Your task to perform on an android device: change alarm snooze length Image 0: 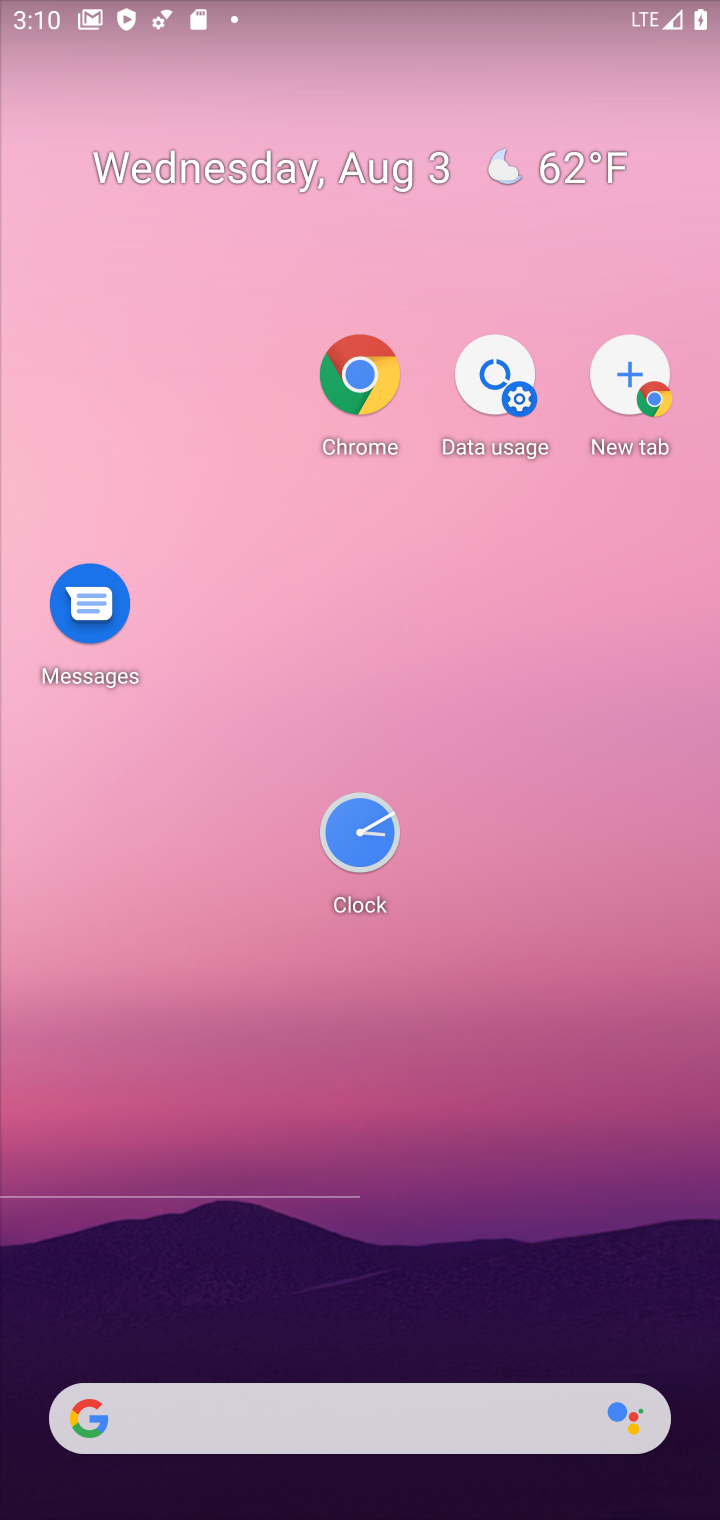
Step 0: drag from (570, 1499) to (280, 309)
Your task to perform on an android device: change alarm snooze length Image 1: 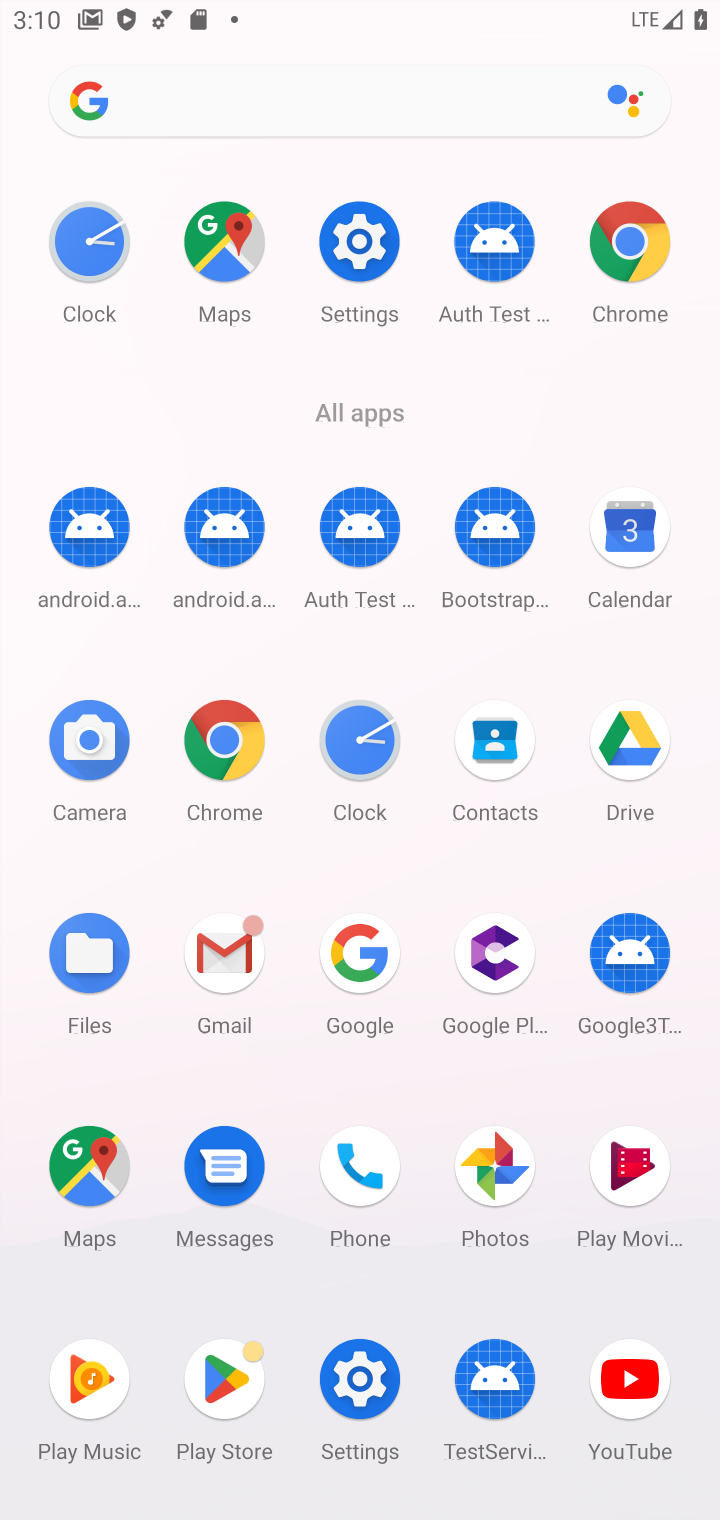
Step 1: click (351, 718)
Your task to perform on an android device: change alarm snooze length Image 2: 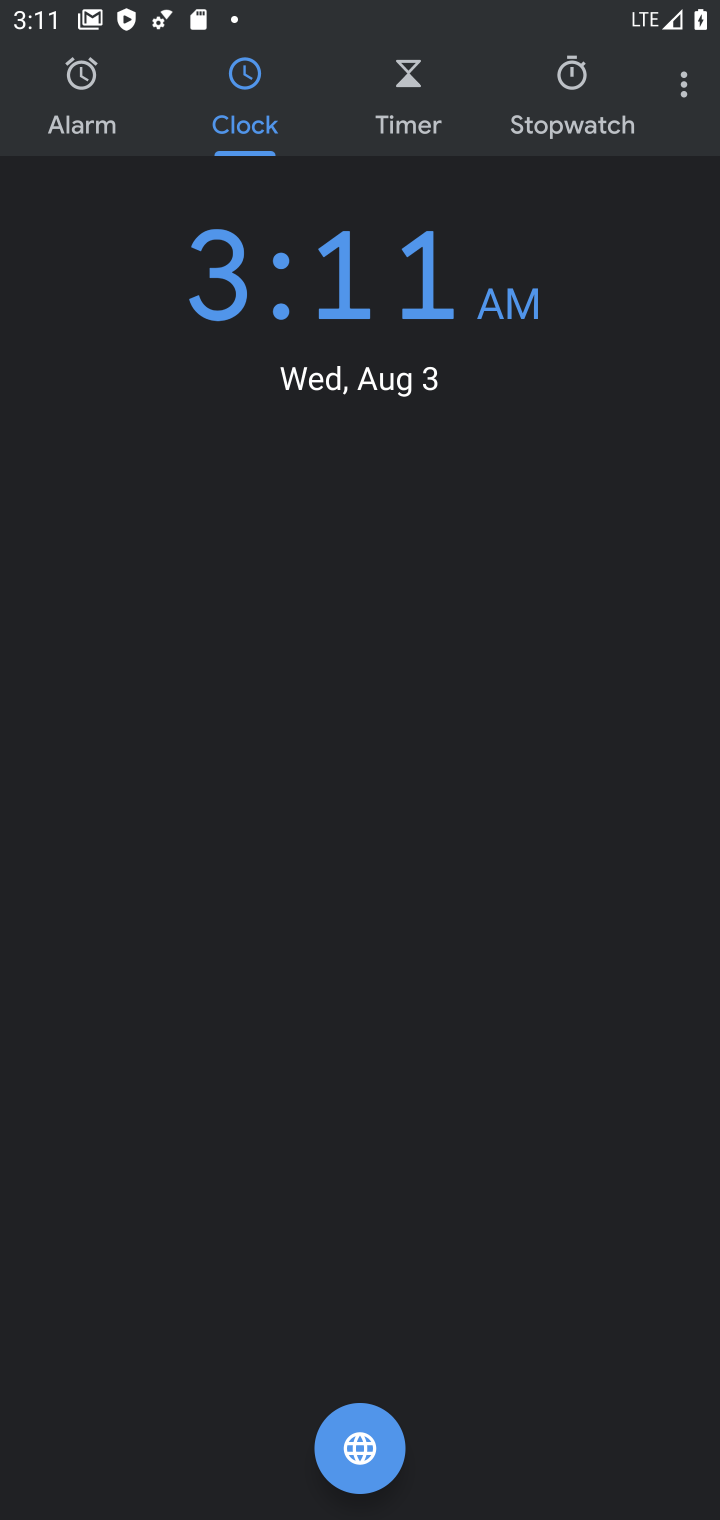
Step 2: click (661, 86)
Your task to perform on an android device: change alarm snooze length Image 3: 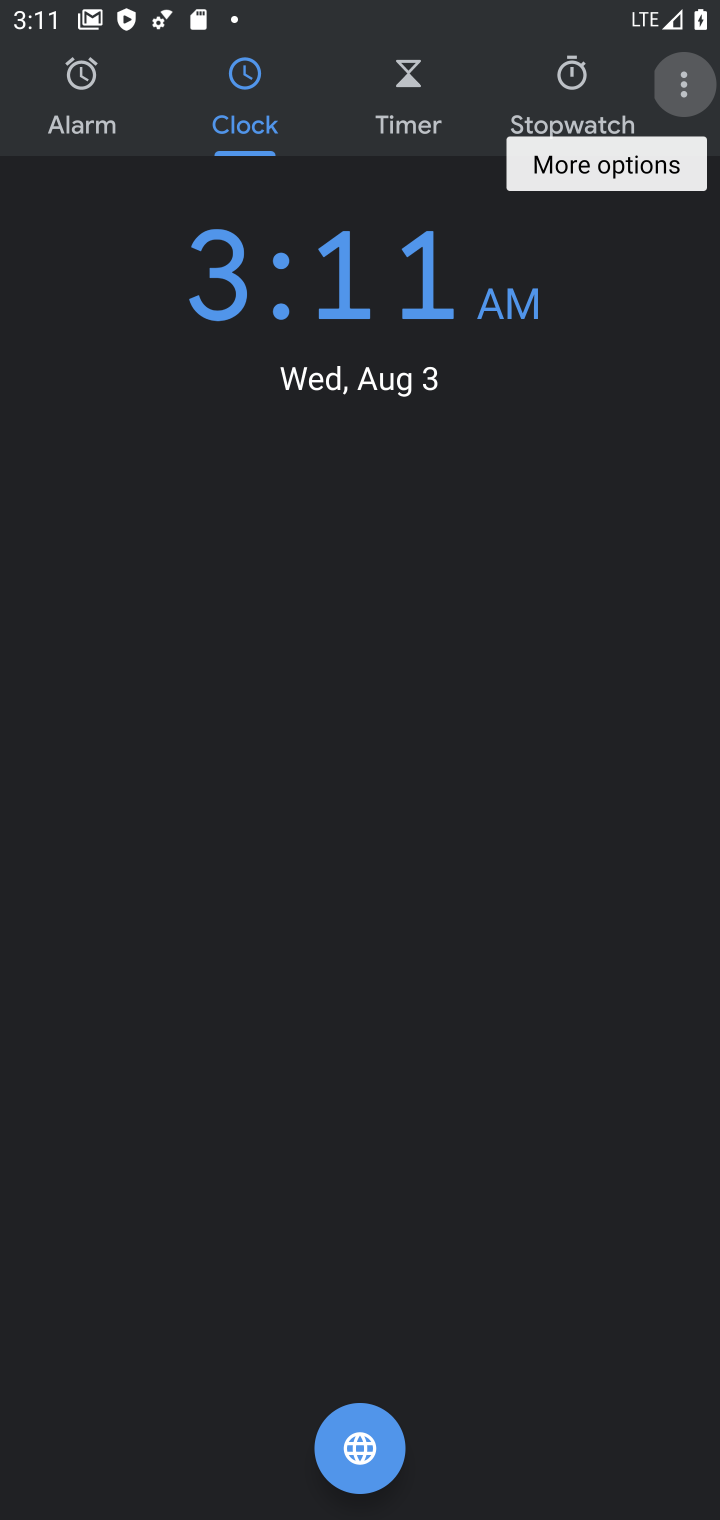
Step 3: drag from (661, 86) to (476, 190)
Your task to perform on an android device: change alarm snooze length Image 4: 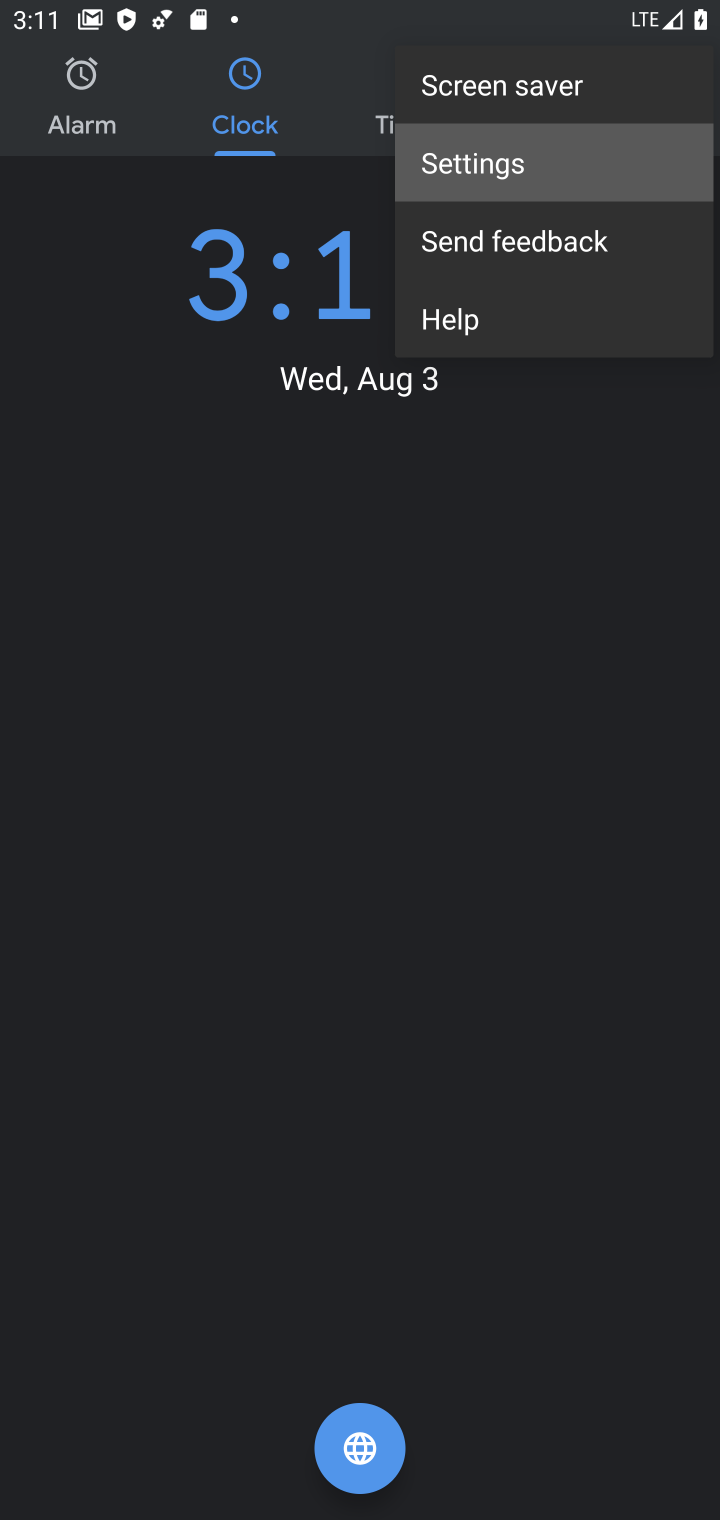
Step 4: click (476, 190)
Your task to perform on an android device: change alarm snooze length Image 5: 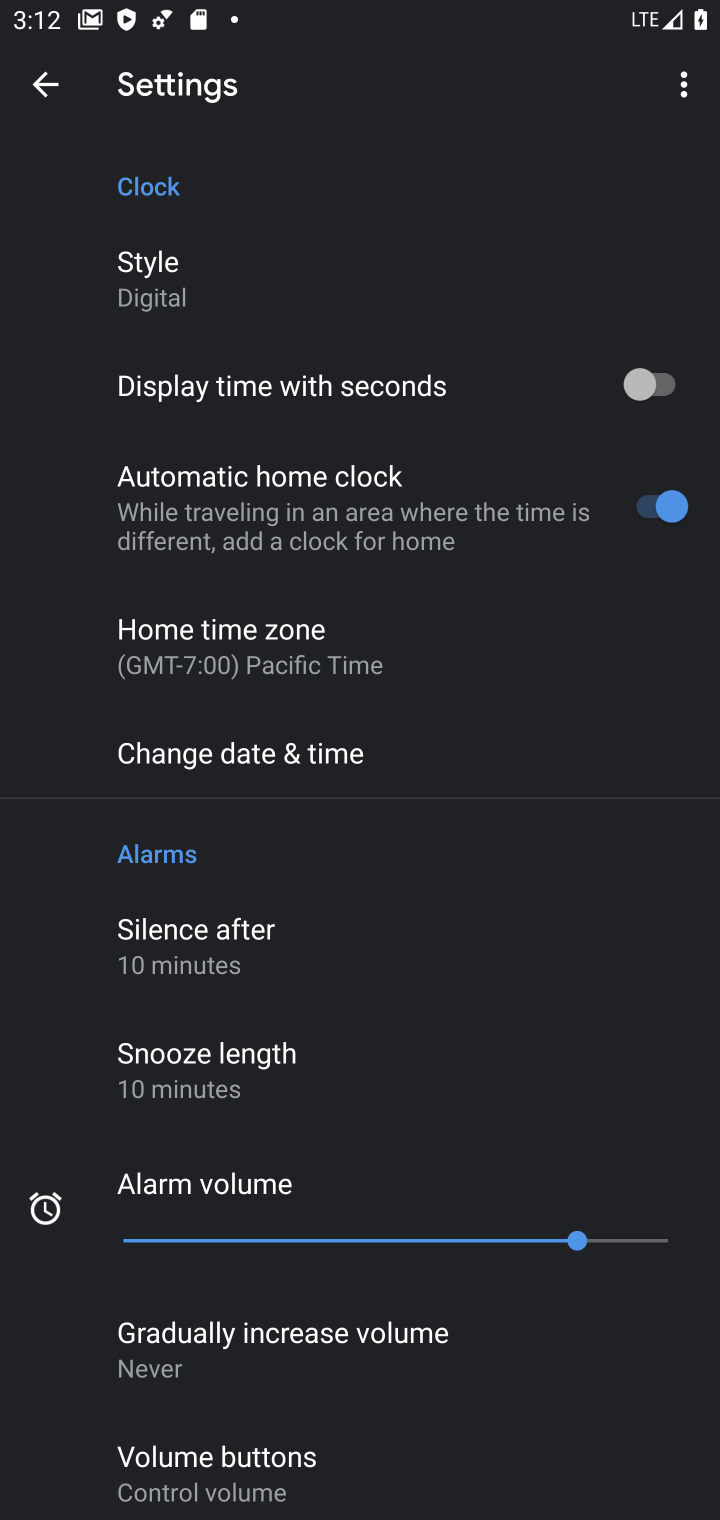
Step 5: click (210, 1042)
Your task to perform on an android device: change alarm snooze length Image 6: 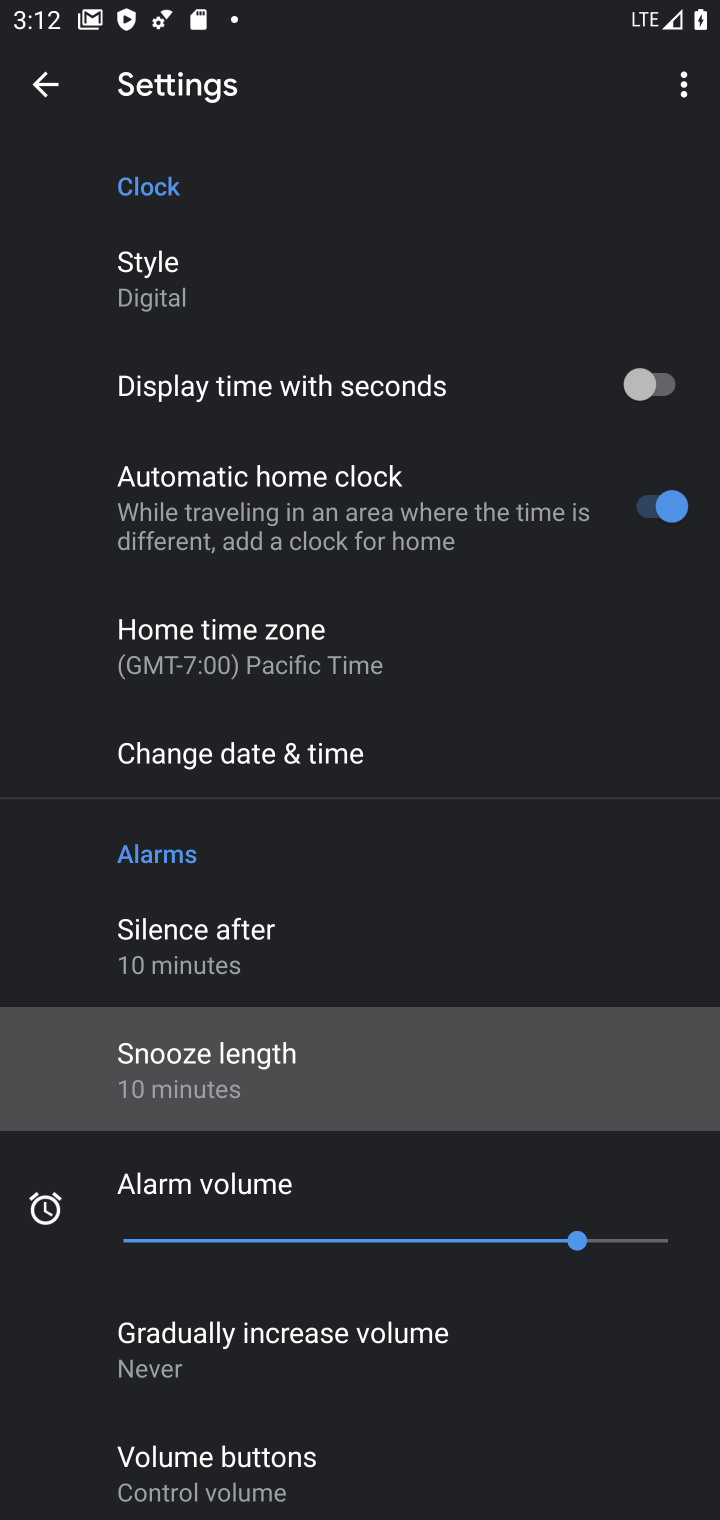
Step 6: click (210, 1050)
Your task to perform on an android device: change alarm snooze length Image 7: 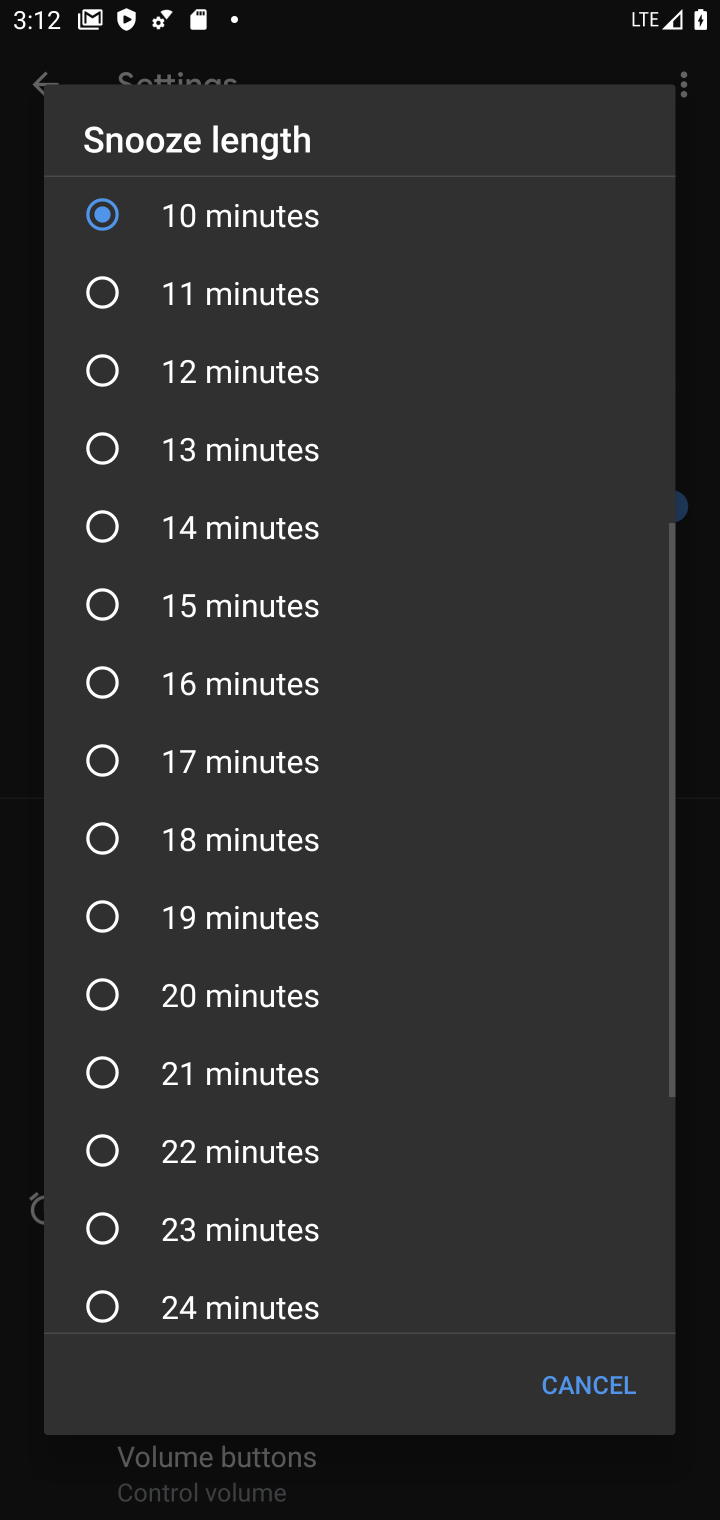
Step 7: click (244, 931)
Your task to perform on an android device: change alarm snooze length Image 8: 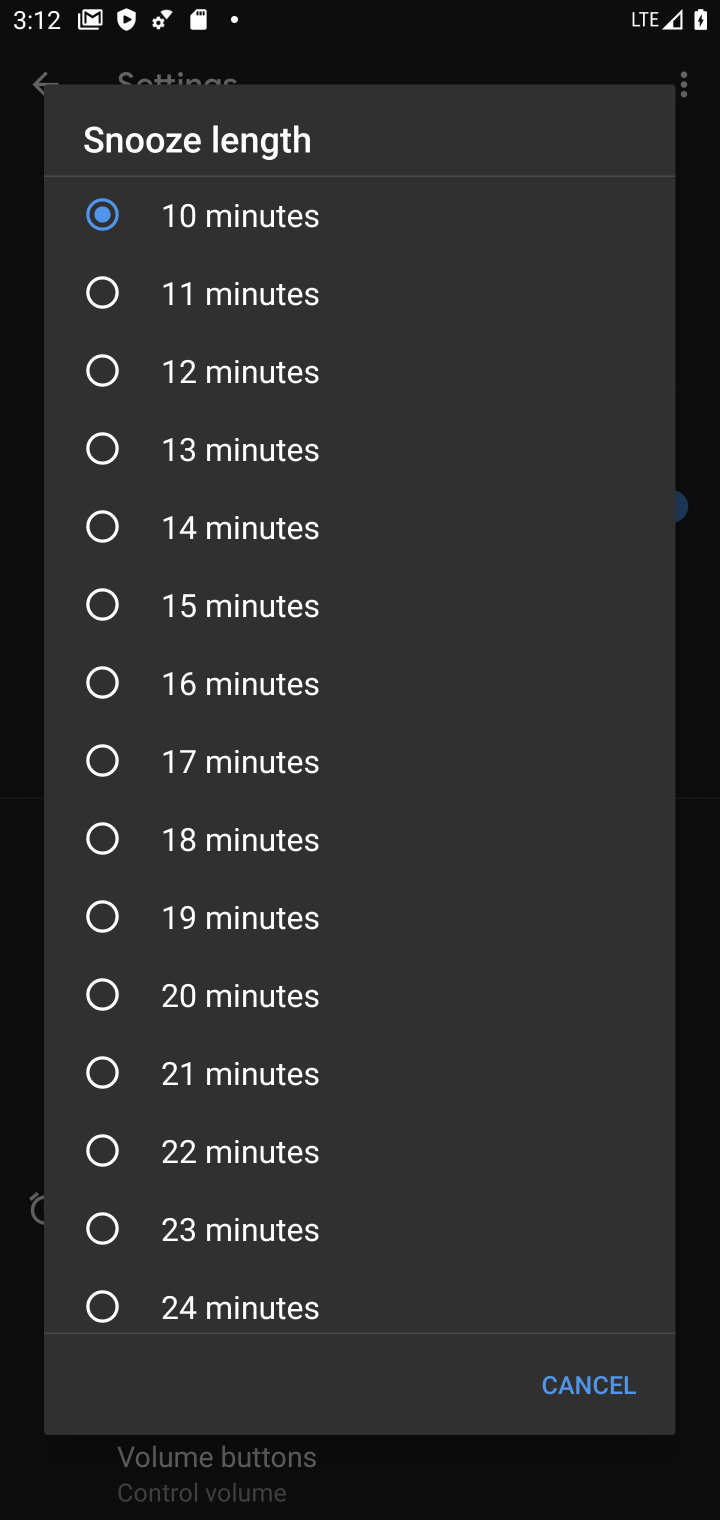
Step 8: click (246, 915)
Your task to perform on an android device: change alarm snooze length Image 9: 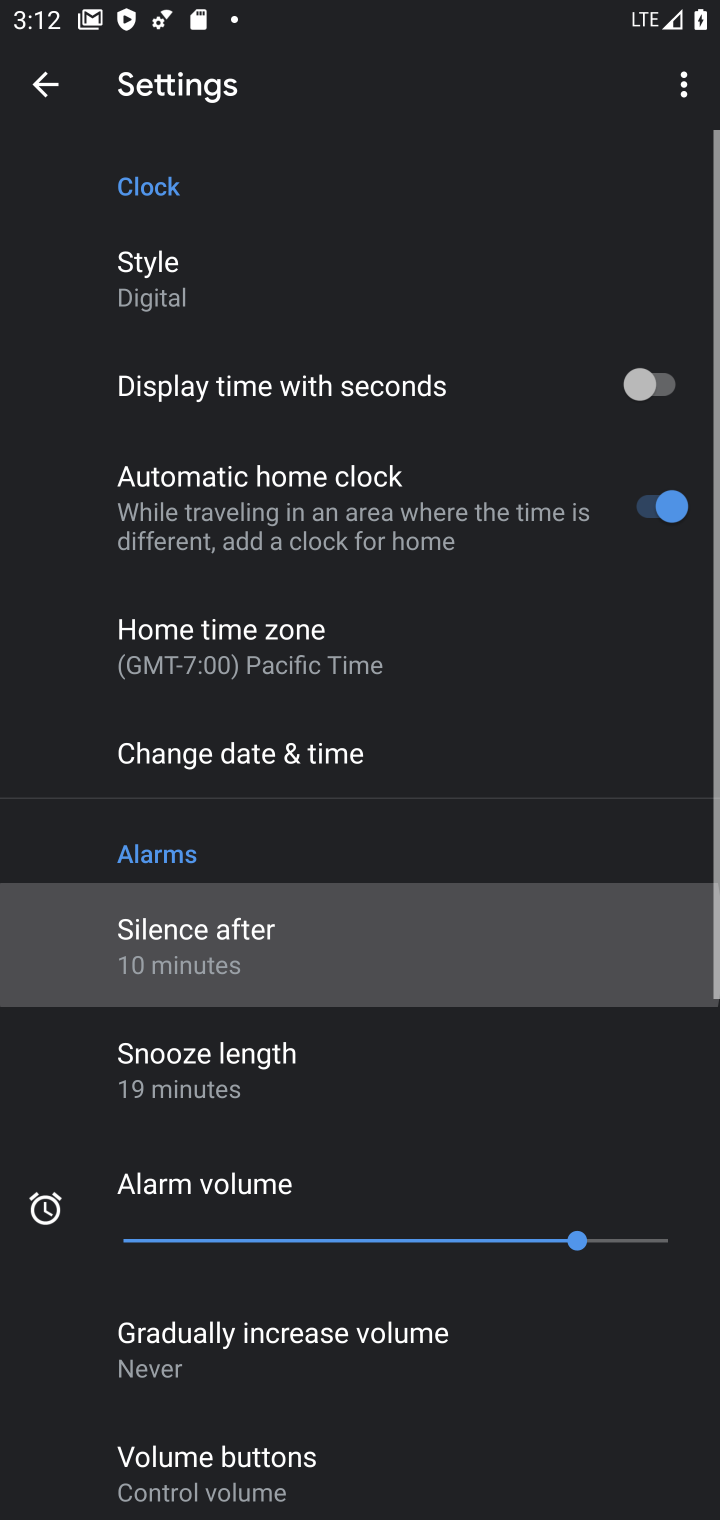
Step 9: task complete